Your task to perform on an android device: Go to wifi settings Image 0: 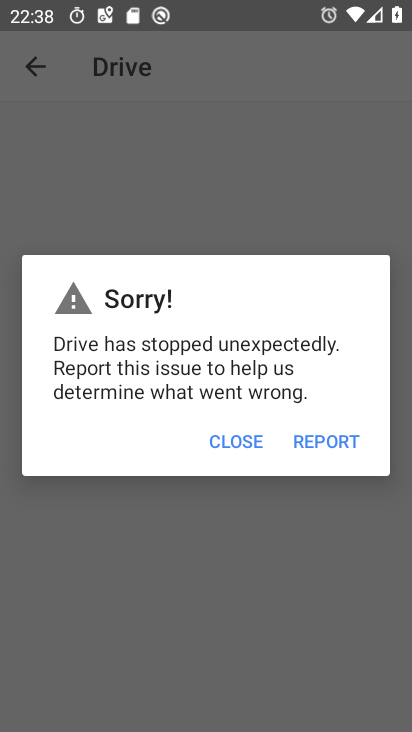
Step 0: press home button
Your task to perform on an android device: Go to wifi settings Image 1: 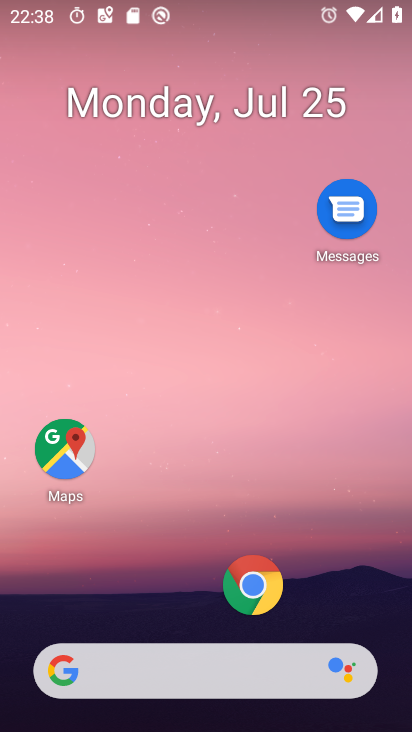
Step 1: drag from (191, 676) to (358, 8)
Your task to perform on an android device: Go to wifi settings Image 2: 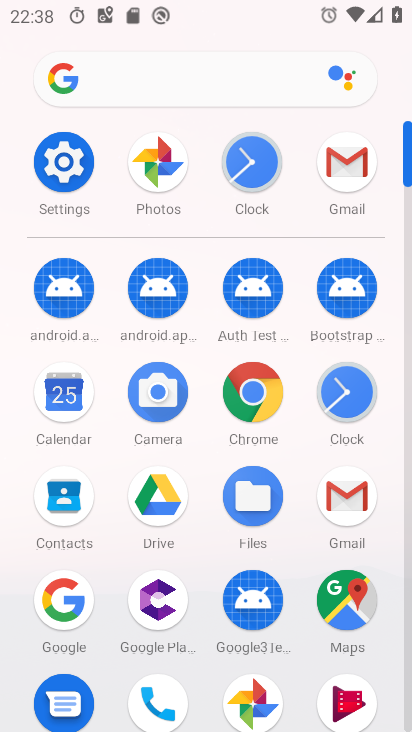
Step 2: click (57, 161)
Your task to perform on an android device: Go to wifi settings Image 3: 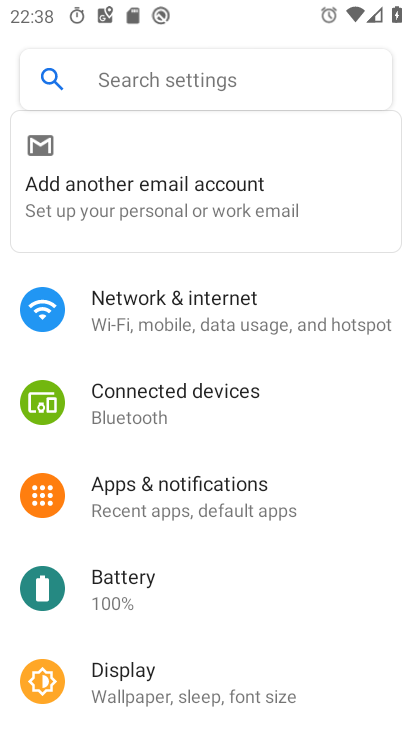
Step 3: click (171, 311)
Your task to perform on an android device: Go to wifi settings Image 4: 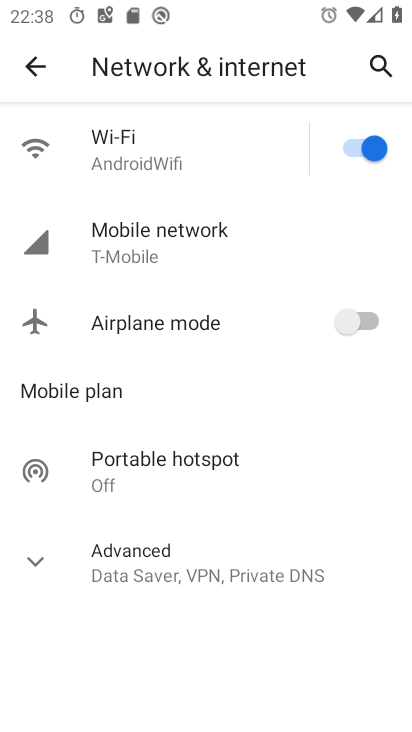
Step 4: click (146, 155)
Your task to perform on an android device: Go to wifi settings Image 5: 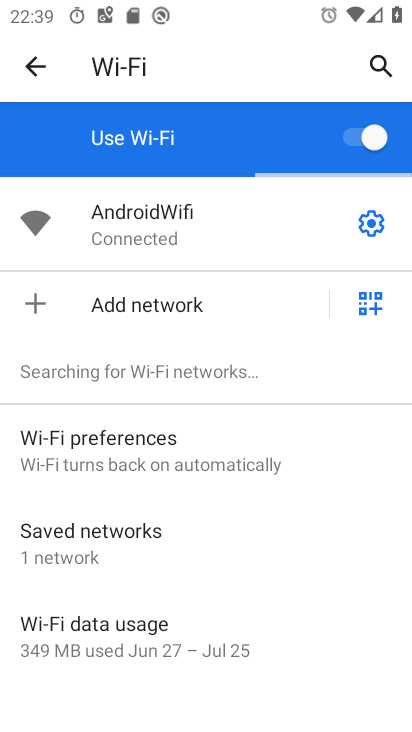
Step 5: task complete